Your task to perform on an android device: set default search engine in the chrome app Image 0: 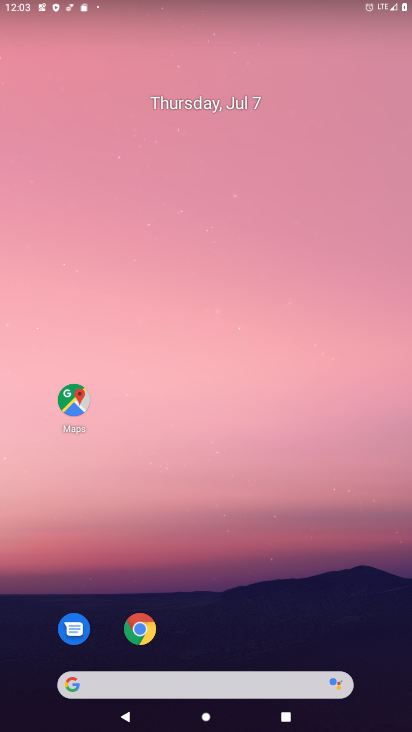
Step 0: click (143, 626)
Your task to perform on an android device: set default search engine in the chrome app Image 1: 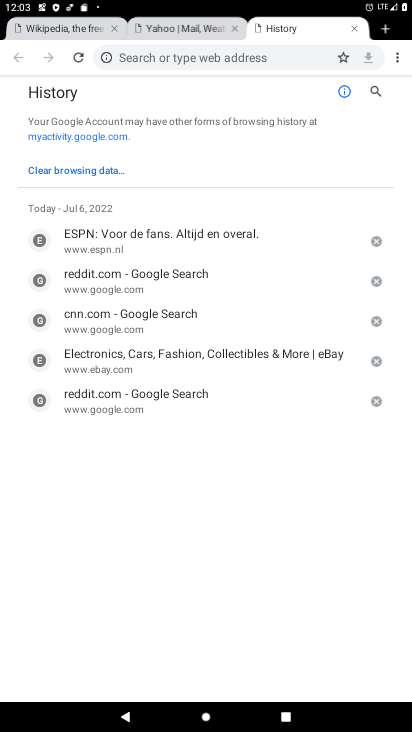
Step 1: click (400, 53)
Your task to perform on an android device: set default search engine in the chrome app Image 2: 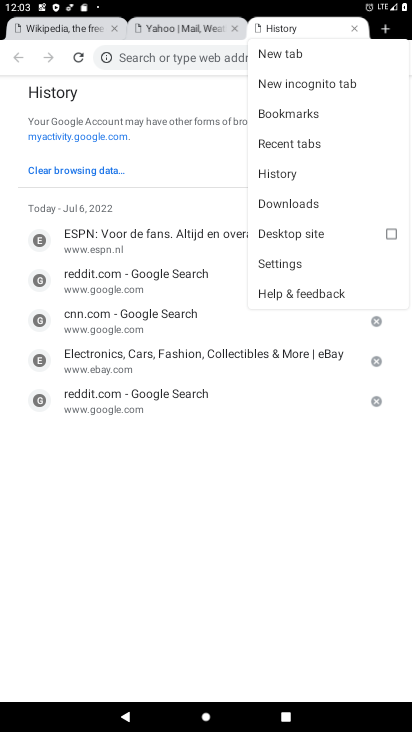
Step 2: click (287, 263)
Your task to perform on an android device: set default search engine in the chrome app Image 3: 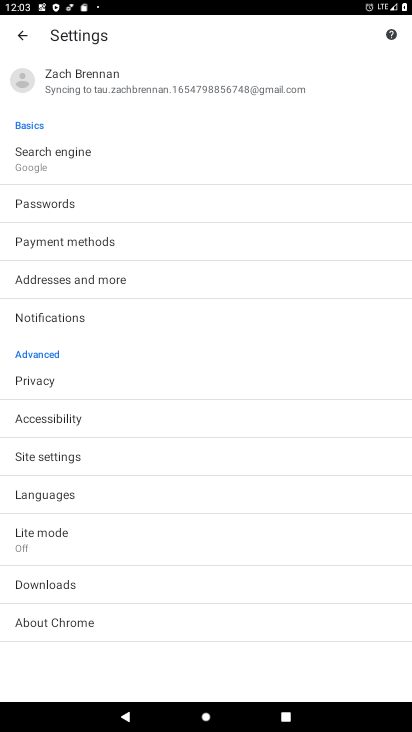
Step 3: click (80, 156)
Your task to perform on an android device: set default search engine in the chrome app Image 4: 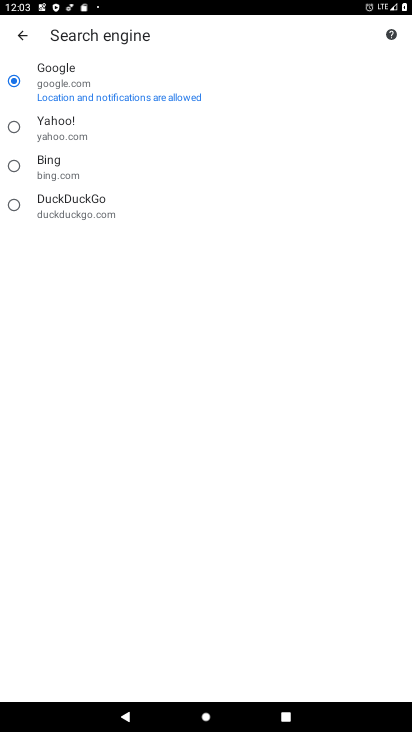
Step 4: click (14, 121)
Your task to perform on an android device: set default search engine in the chrome app Image 5: 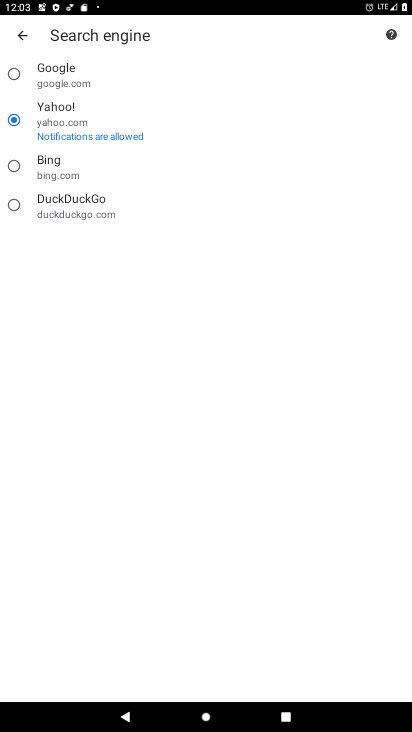
Step 5: task complete